Your task to perform on an android device: visit the assistant section in the google photos Image 0: 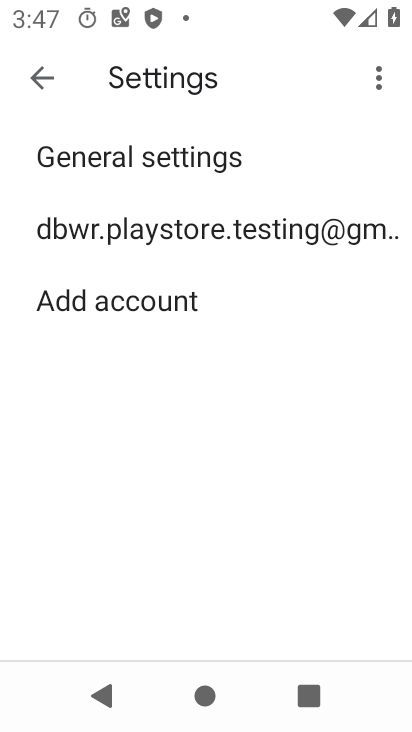
Step 0: press home button
Your task to perform on an android device: visit the assistant section in the google photos Image 1: 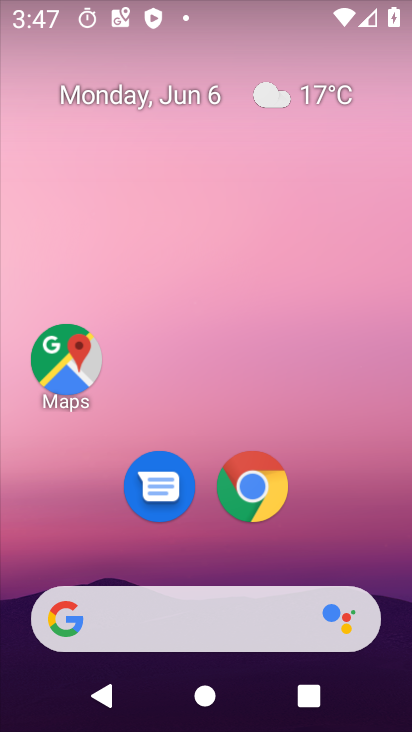
Step 1: click (56, 368)
Your task to perform on an android device: visit the assistant section in the google photos Image 2: 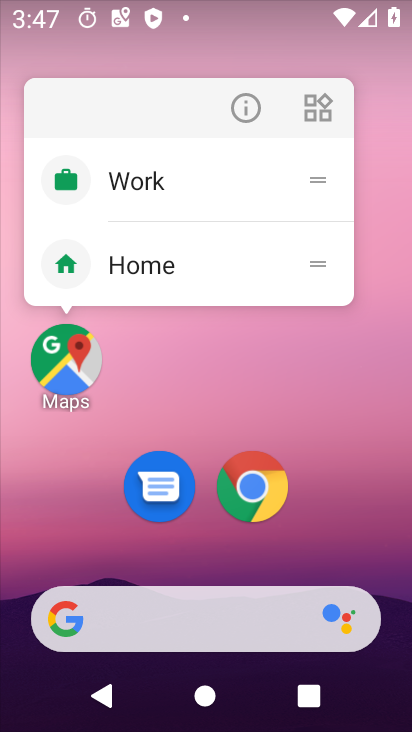
Step 2: click (336, 489)
Your task to perform on an android device: visit the assistant section in the google photos Image 3: 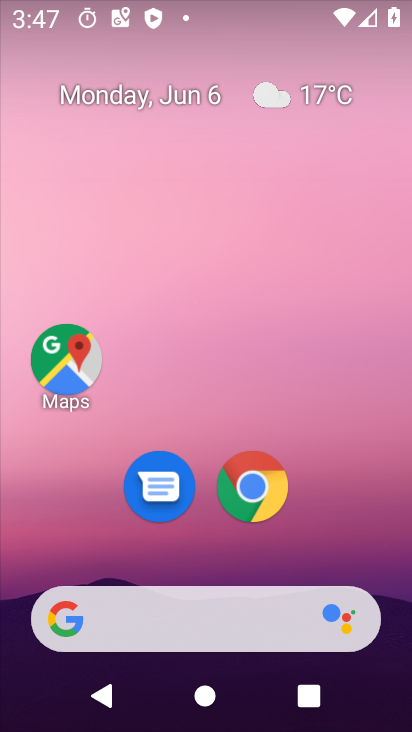
Step 3: drag from (330, 513) to (381, 74)
Your task to perform on an android device: visit the assistant section in the google photos Image 4: 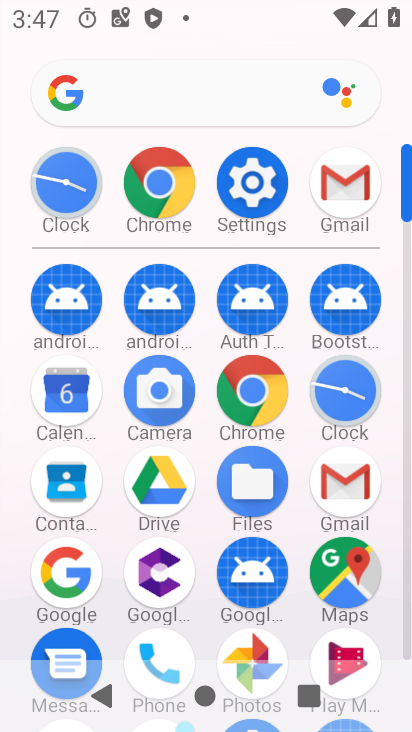
Step 4: click (241, 658)
Your task to perform on an android device: visit the assistant section in the google photos Image 5: 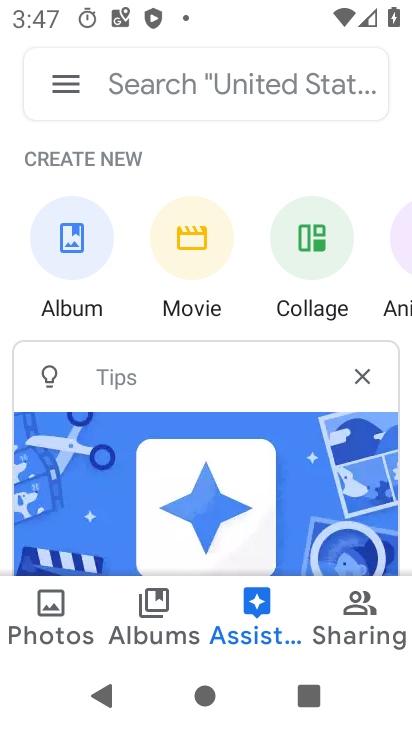
Step 5: task complete